Your task to perform on an android device: change timer sound Image 0: 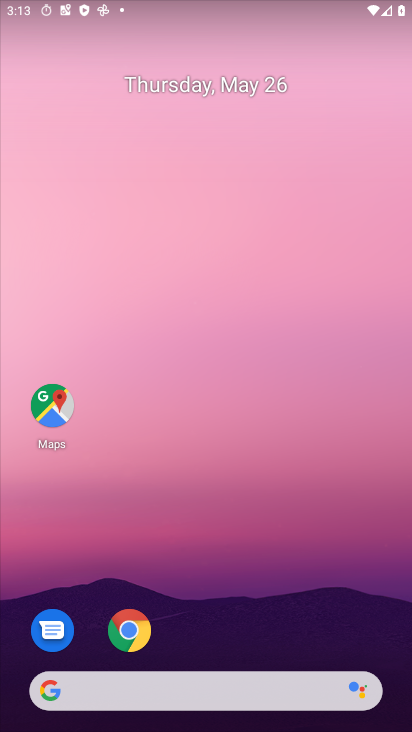
Step 0: drag from (267, 533) to (208, 48)
Your task to perform on an android device: change timer sound Image 1: 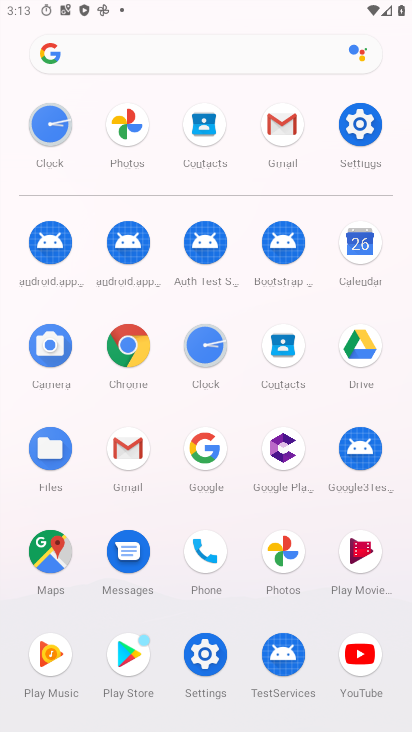
Step 1: click (63, 125)
Your task to perform on an android device: change timer sound Image 2: 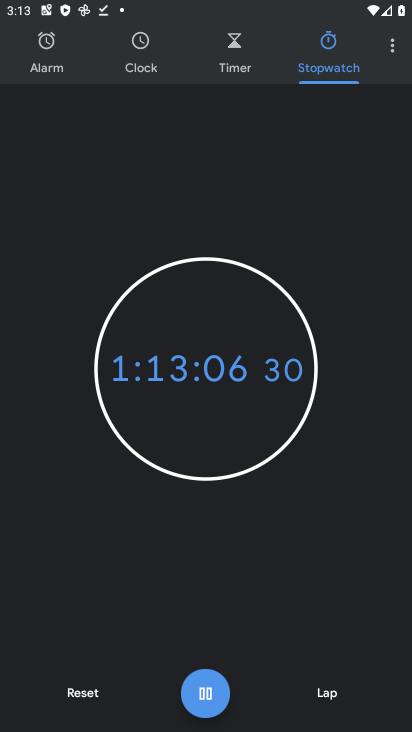
Step 2: click (392, 39)
Your task to perform on an android device: change timer sound Image 3: 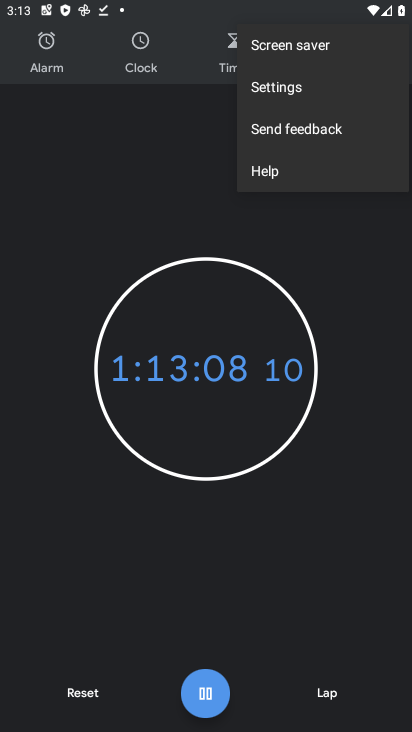
Step 3: click (272, 95)
Your task to perform on an android device: change timer sound Image 4: 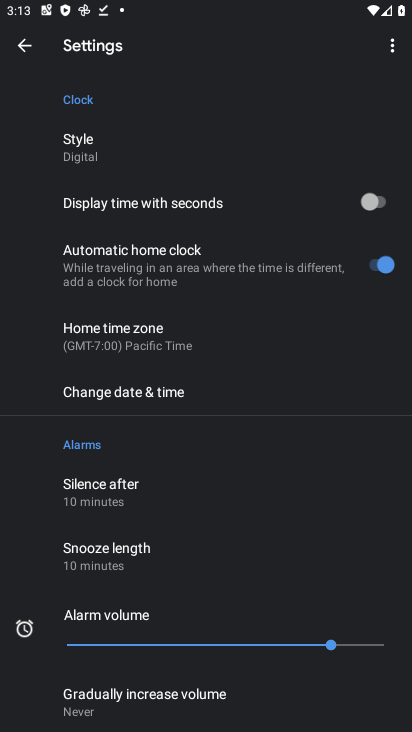
Step 4: click (84, 153)
Your task to perform on an android device: change timer sound Image 5: 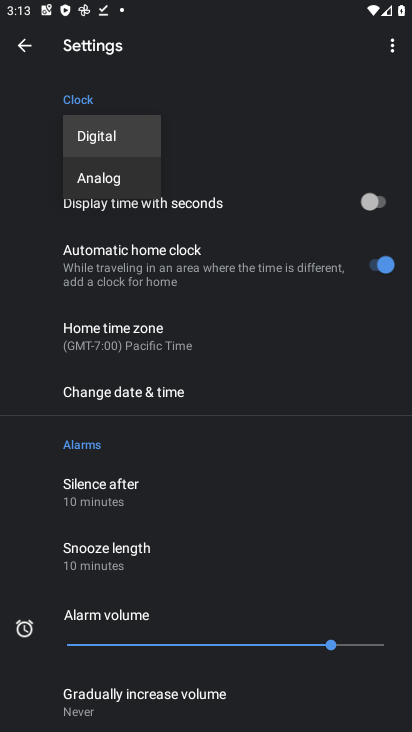
Step 5: click (133, 190)
Your task to perform on an android device: change timer sound Image 6: 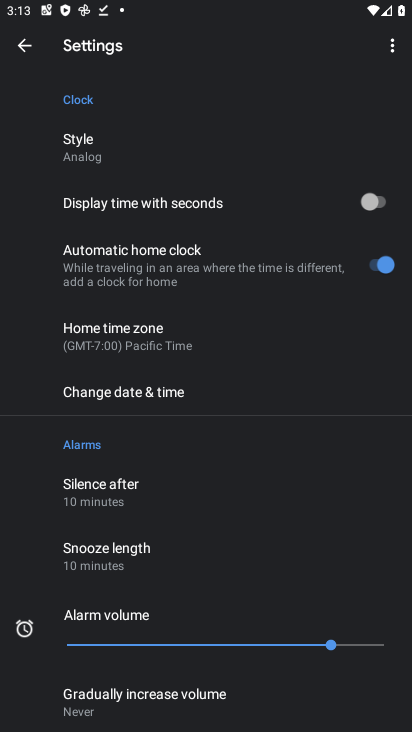
Step 6: drag from (192, 524) to (177, 208)
Your task to perform on an android device: change timer sound Image 7: 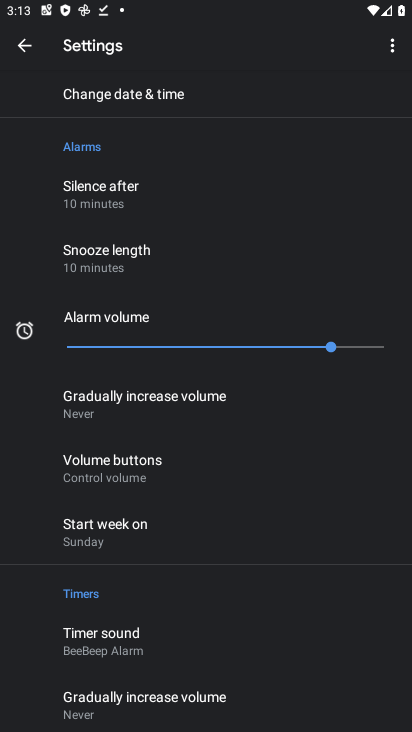
Step 7: click (73, 650)
Your task to perform on an android device: change timer sound Image 8: 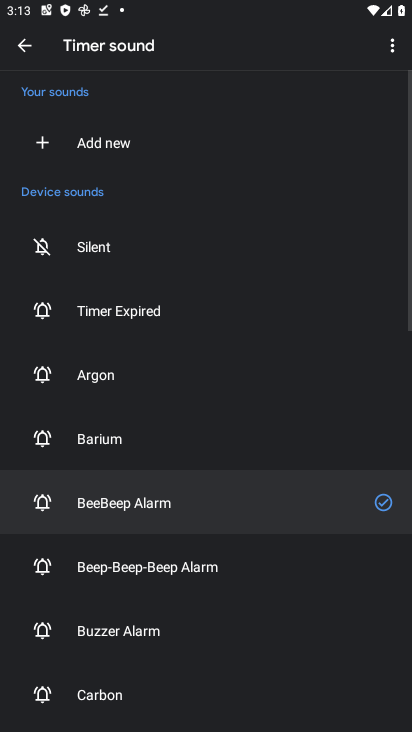
Step 8: click (153, 572)
Your task to perform on an android device: change timer sound Image 9: 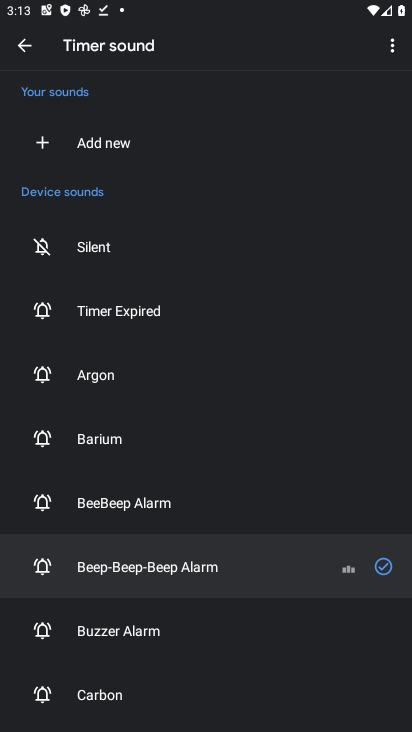
Step 9: task complete